Your task to perform on an android device: Show me popular videos on Youtube Image 0: 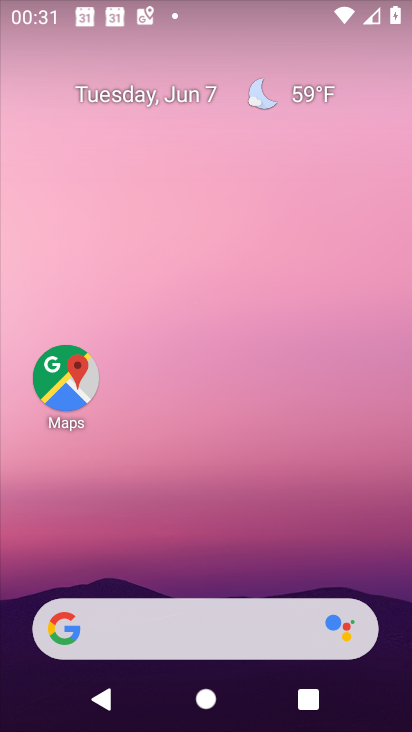
Step 0: drag from (179, 472) to (194, 26)
Your task to perform on an android device: Show me popular videos on Youtube Image 1: 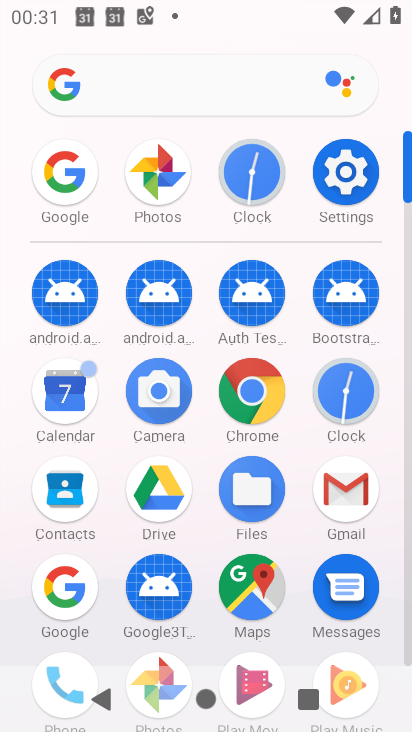
Step 1: task complete